Your task to perform on an android device: What's on my calendar tomorrow? Image 0: 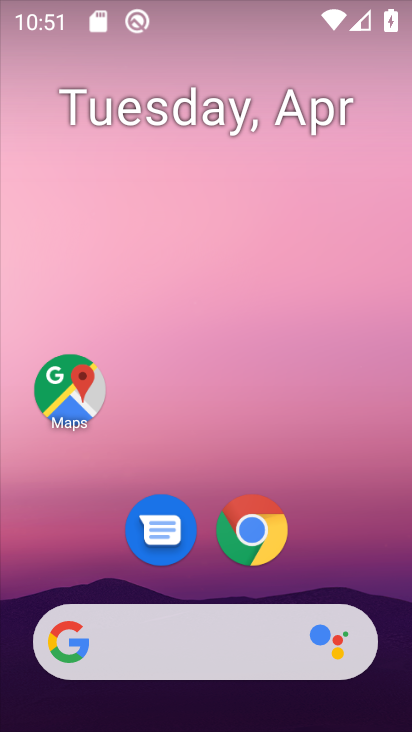
Step 0: drag from (190, 590) to (348, 105)
Your task to perform on an android device: What's on my calendar tomorrow? Image 1: 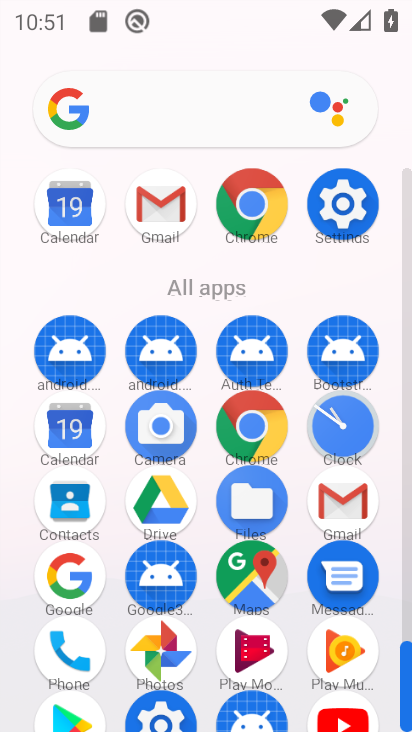
Step 1: click (80, 210)
Your task to perform on an android device: What's on my calendar tomorrow? Image 2: 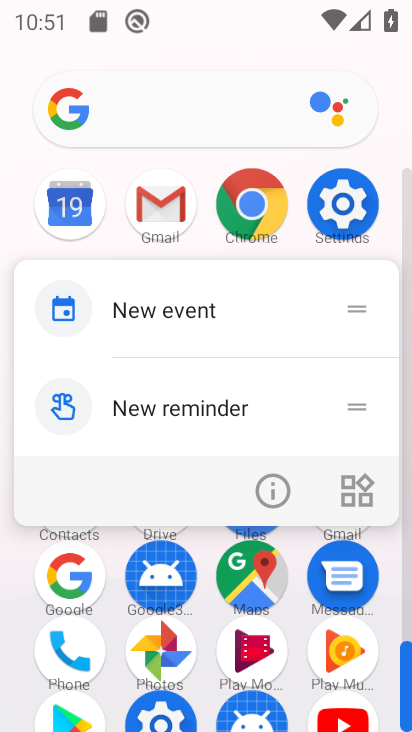
Step 2: click (59, 213)
Your task to perform on an android device: What's on my calendar tomorrow? Image 3: 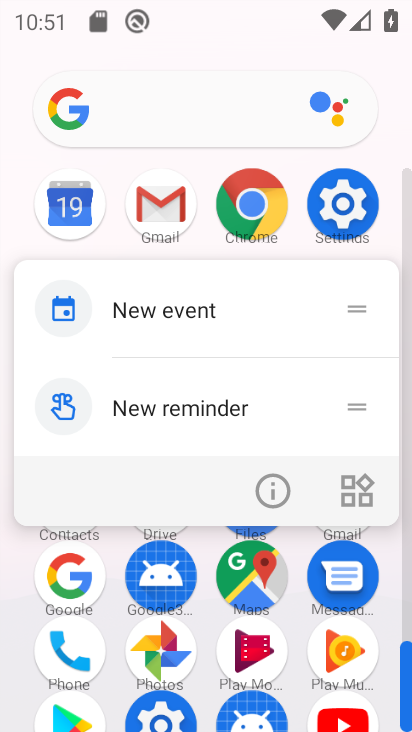
Step 3: click (67, 213)
Your task to perform on an android device: What's on my calendar tomorrow? Image 4: 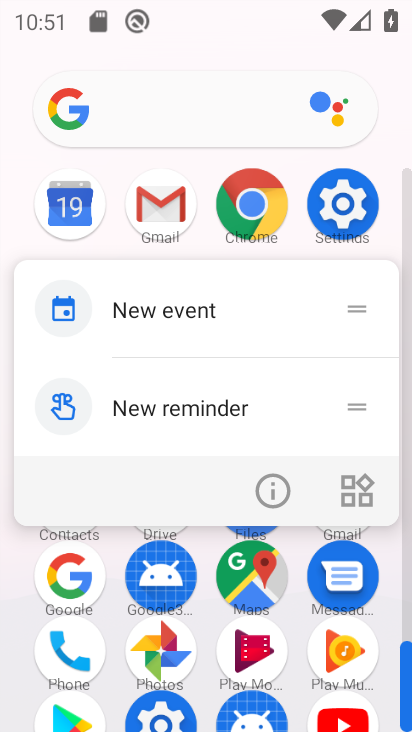
Step 4: click (72, 214)
Your task to perform on an android device: What's on my calendar tomorrow? Image 5: 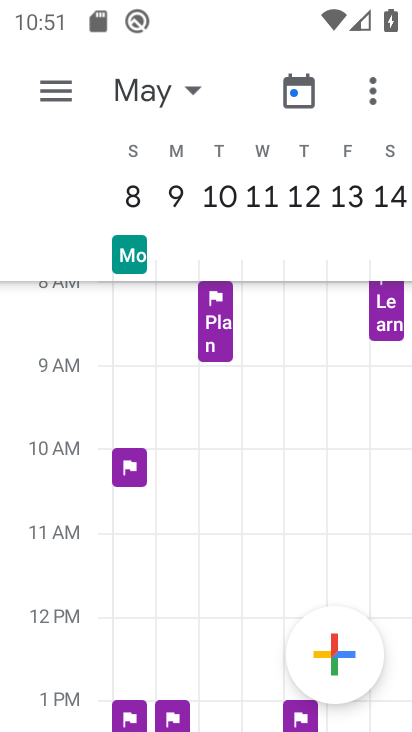
Step 5: click (125, 90)
Your task to perform on an android device: What's on my calendar tomorrow? Image 6: 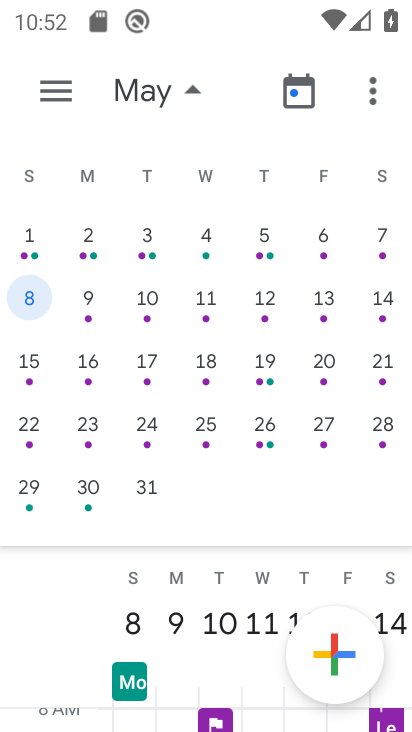
Step 6: drag from (33, 390) to (404, 378)
Your task to perform on an android device: What's on my calendar tomorrow? Image 7: 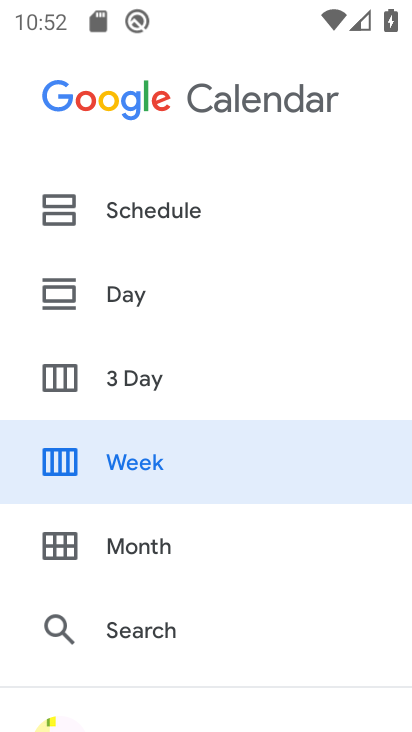
Step 7: press back button
Your task to perform on an android device: What's on my calendar tomorrow? Image 8: 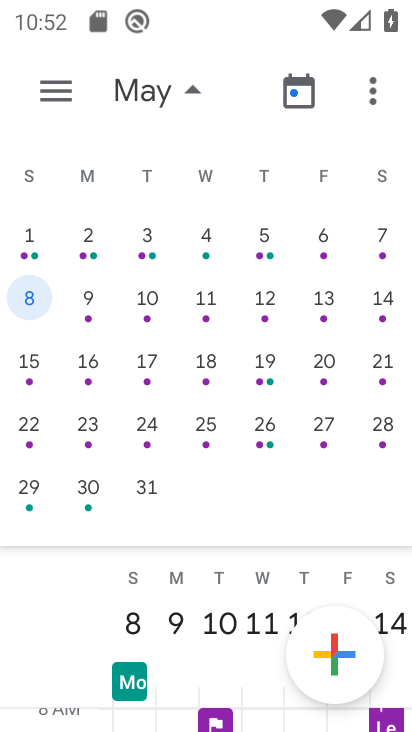
Step 8: drag from (59, 204) to (410, 212)
Your task to perform on an android device: What's on my calendar tomorrow? Image 9: 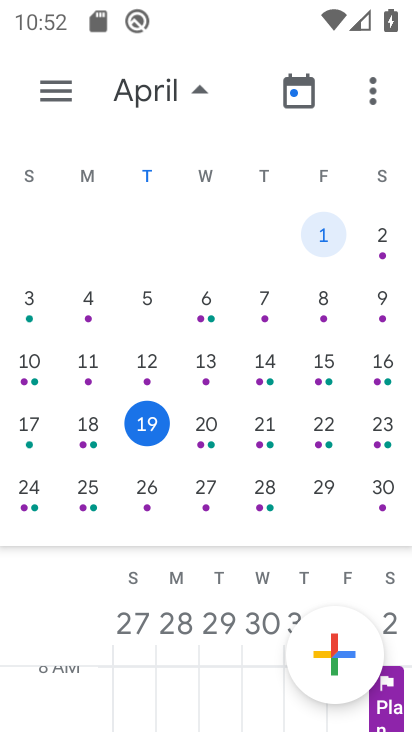
Step 9: click (212, 426)
Your task to perform on an android device: What's on my calendar tomorrow? Image 10: 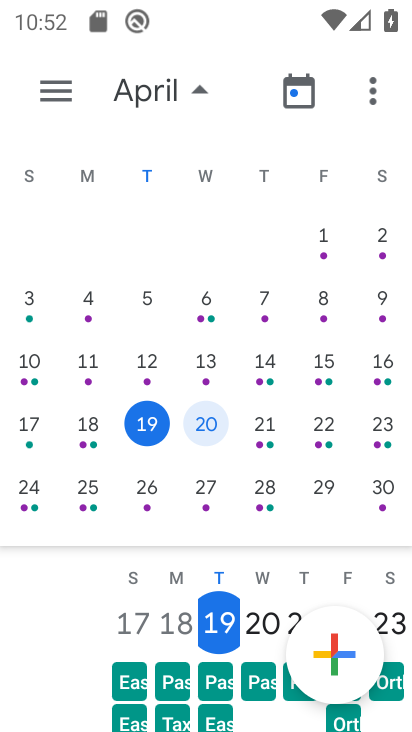
Step 10: click (56, 90)
Your task to perform on an android device: What's on my calendar tomorrow? Image 11: 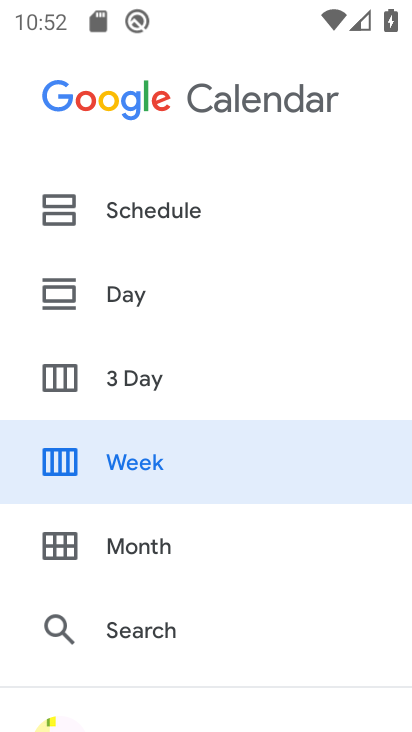
Step 11: click (112, 293)
Your task to perform on an android device: What's on my calendar tomorrow? Image 12: 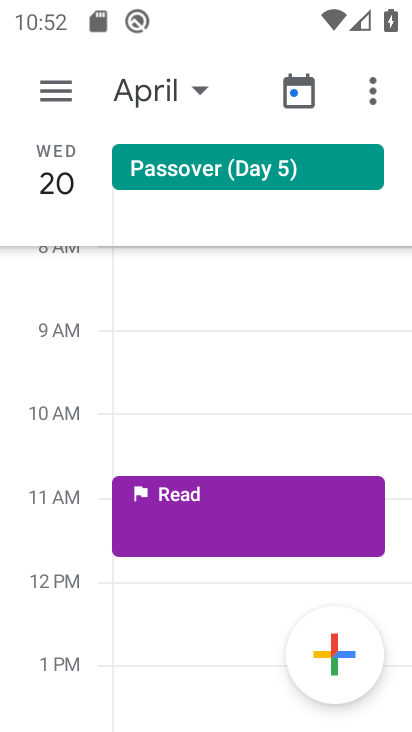
Step 12: task complete